Your task to perform on an android device: clear history in the chrome app Image 0: 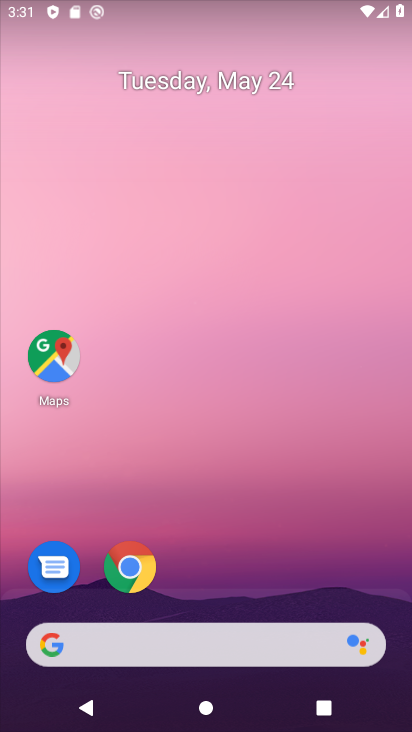
Step 0: drag from (195, 589) to (309, 2)
Your task to perform on an android device: clear history in the chrome app Image 1: 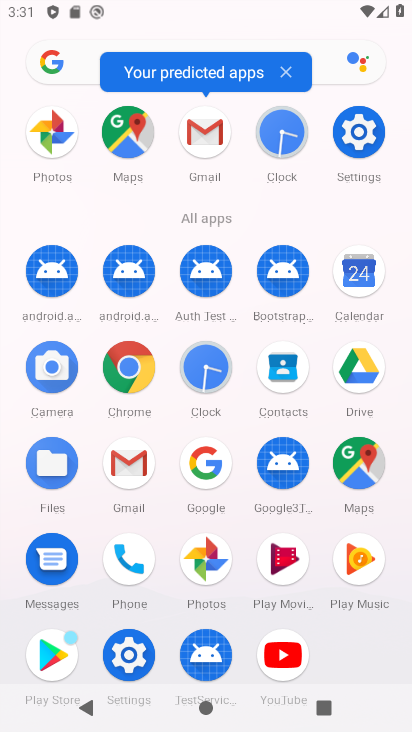
Step 1: click (136, 385)
Your task to perform on an android device: clear history in the chrome app Image 2: 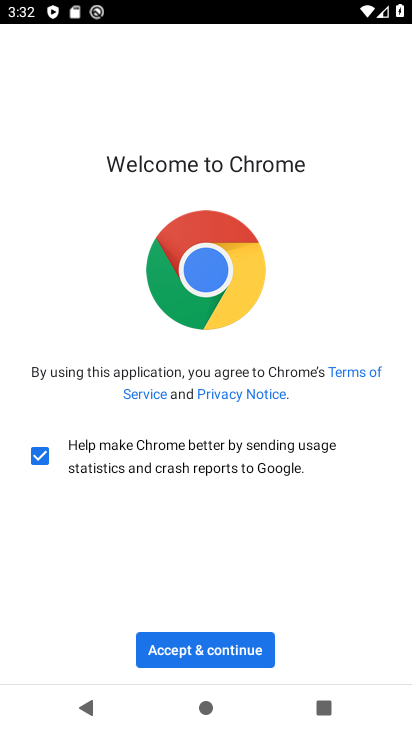
Step 2: click (221, 642)
Your task to perform on an android device: clear history in the chrome app Image 3: 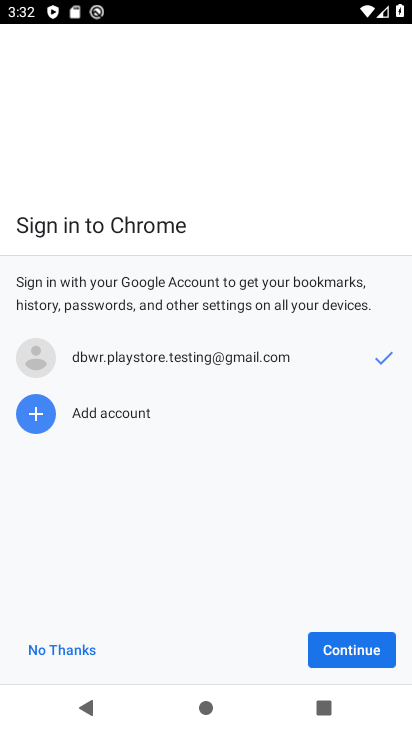
Step 3: click (363, 648)
Your task to perform on an android device: clear history in the chrome app Image 4: 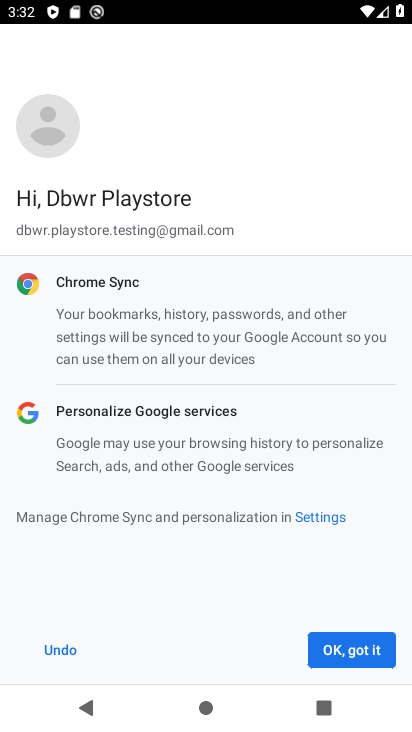
Step 4: click (363, 650)
Your task to perform on an android device: clear history in the chrome app Image 5: 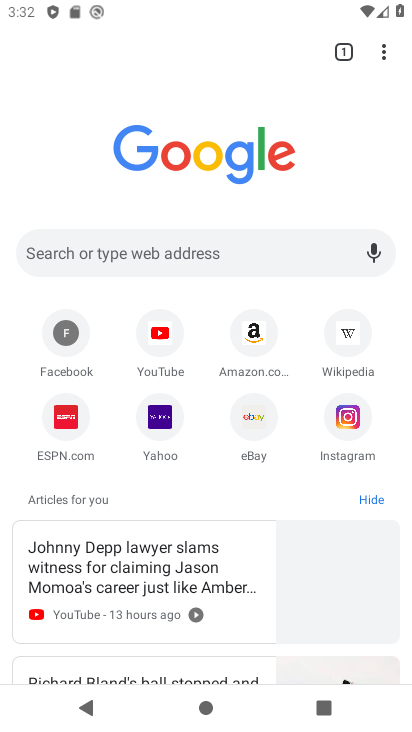
Step 5: click (381, 48)
Your task to perform on an android device: clear history in the chrome app Image 6: 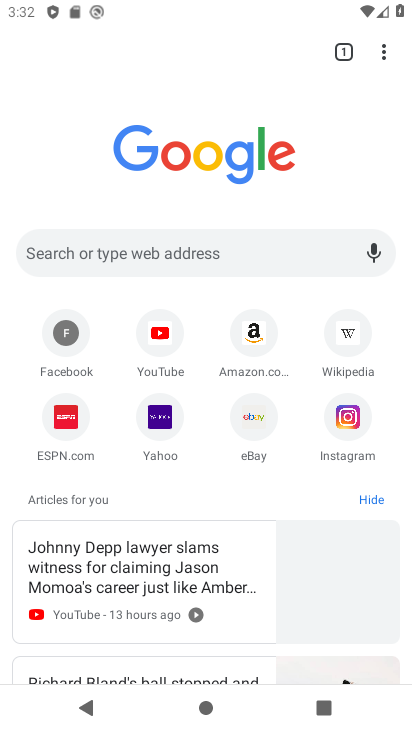
Step 6: click (389, 51)
Your task to perform on an android device: clear history in the chrome app Image 7: 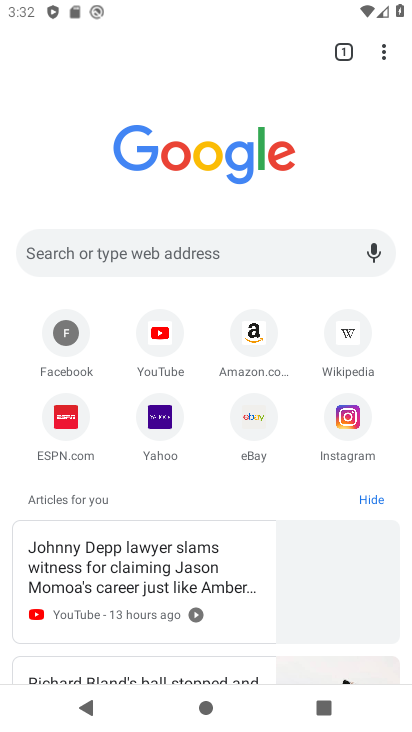
Step 7: click (388, 43)
Your task to perform on an android device: clear history in the chrome app Image 8: 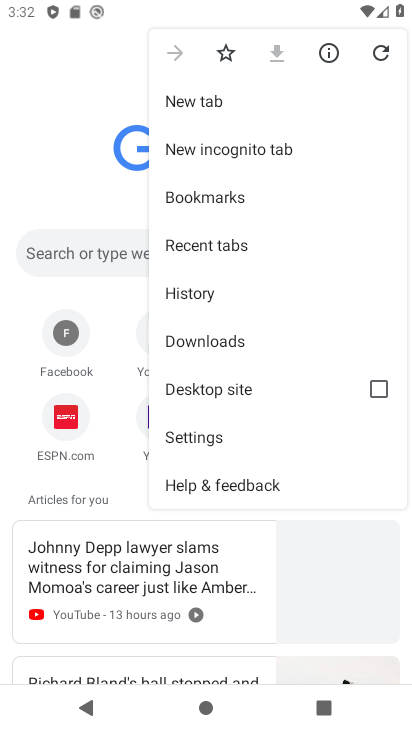
Step 8: click (185, 284)
Your task to perform on an android device: clear history in the chrome app Image 9: 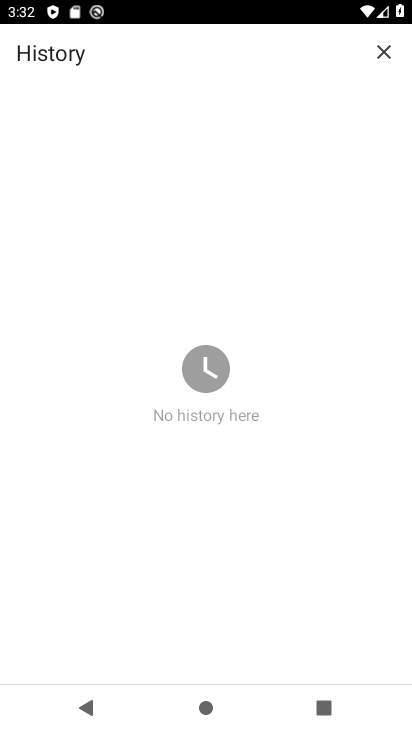
Step 9: task complete